Your task to perform on an android device: Open CNN.com Image 0: 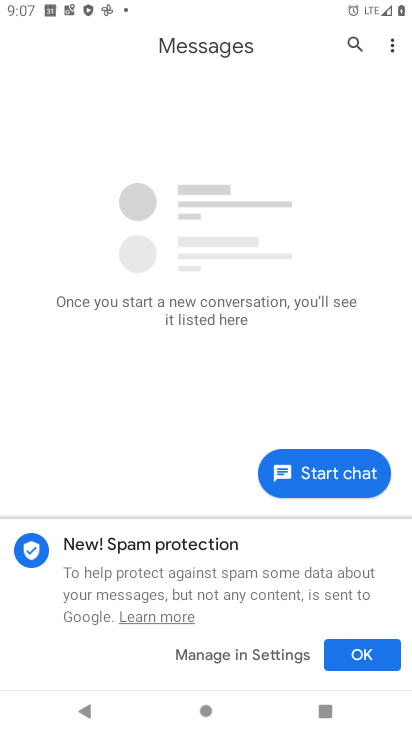
Step 0: press home button
Your task to perform on an android device: Open CNN.com Image 1: 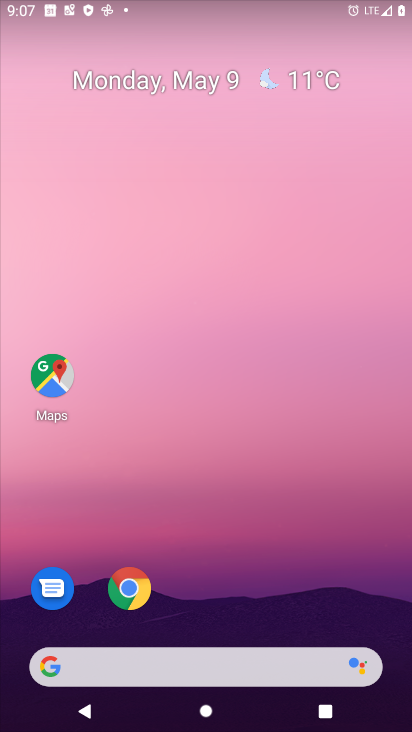
Step 1: drag from (392, 550) to (307, 6)
Your task to perform on an android device: Open CNN.com Image 2: 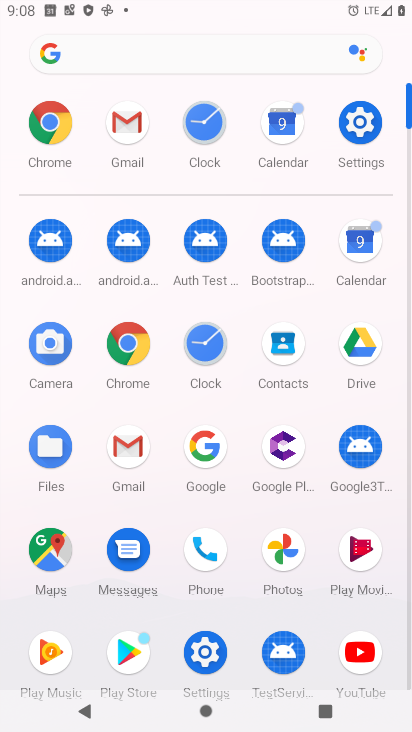
Step 2: click (126, 345)
Your task to perform on an android device: Open CNN.com Image 3: 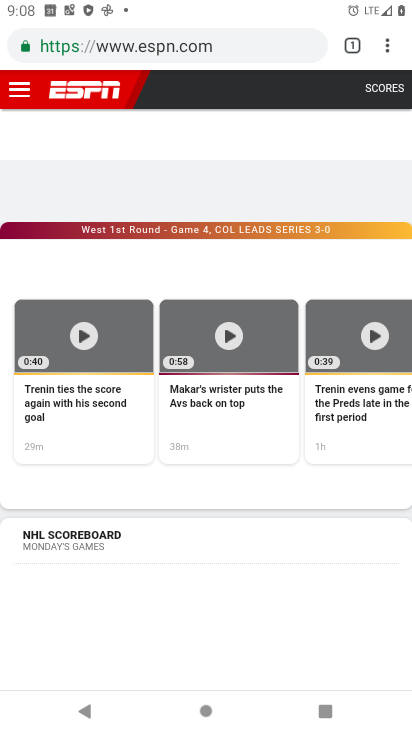
Step 3: press back button
Your task to perform on an android device: Open CNN.com Image 4: 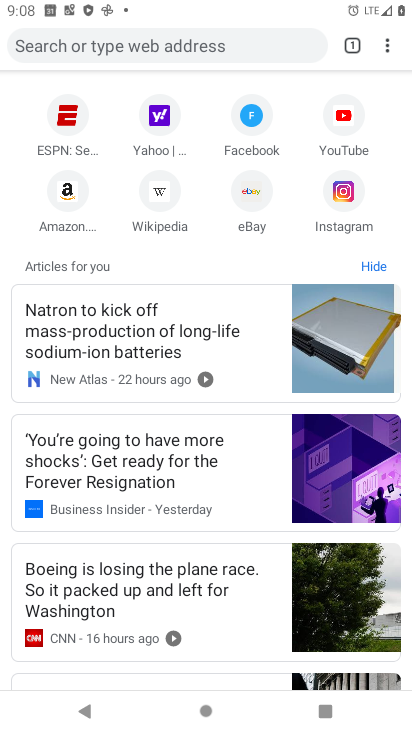
Step 4: click (137, 43)
Your task to perform on an android device: Open CNN.com Image 5: 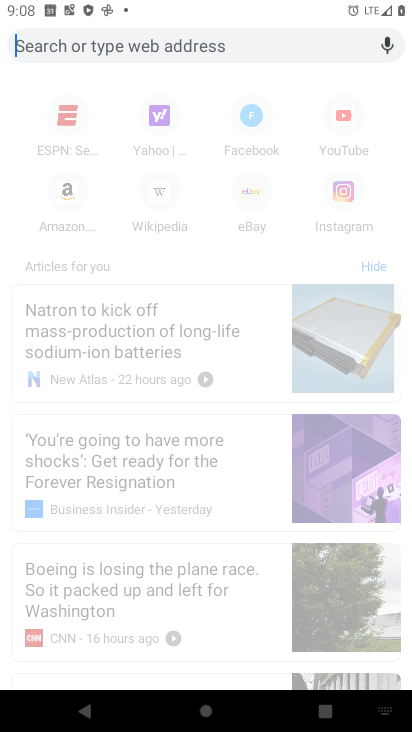
Step 5: type "cnn.com"
Your task to perform on an android device: Open CNN.com Image 6: 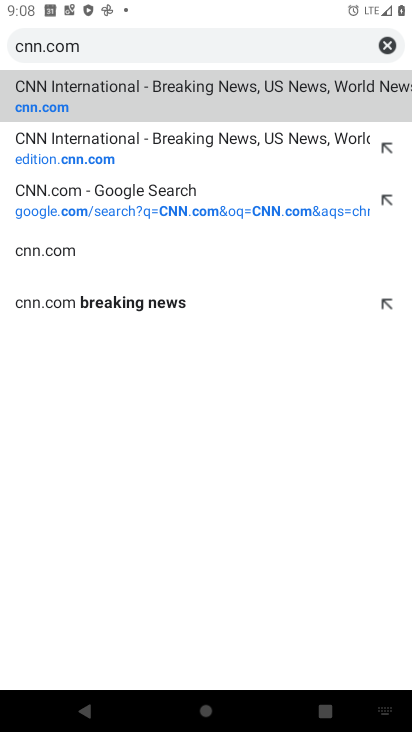
Step 6: click (150, 107)
Your task to perform on an android device: Open CNN.com Image 7: 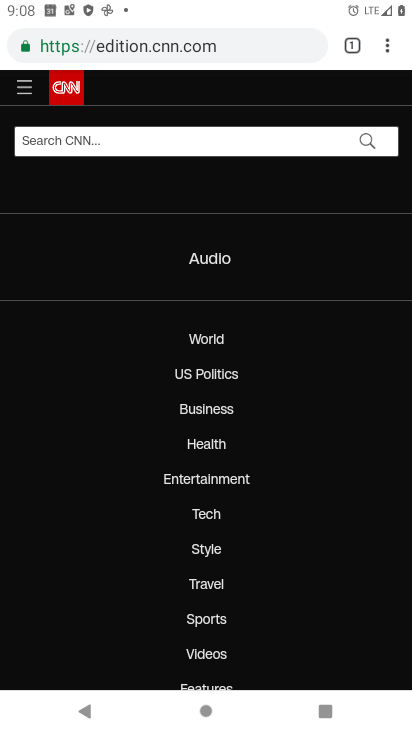
Step 7: task complete